Your task to perform on an android device: Open calendar and show me the third week of next month Image 0: 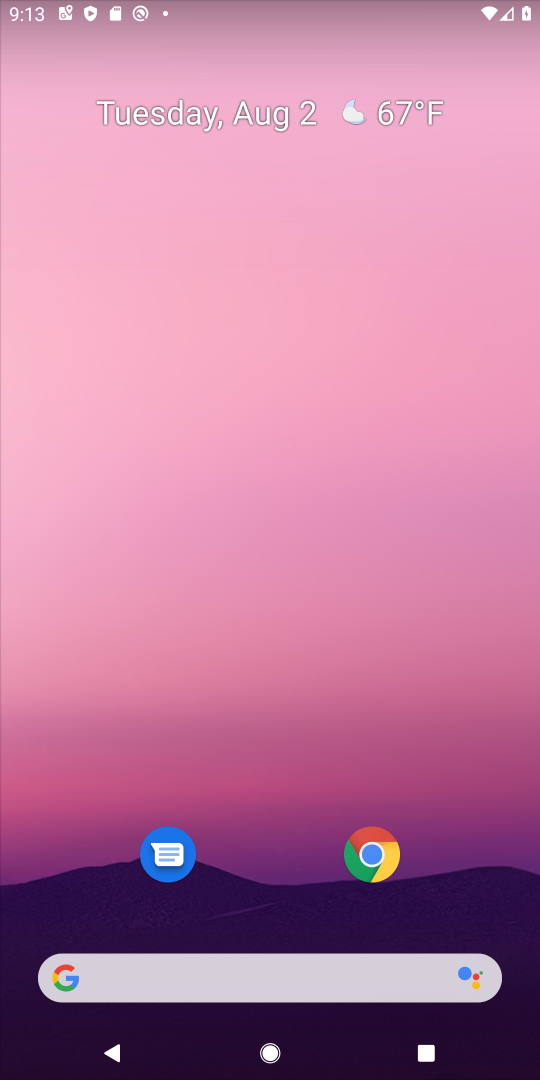
Step 0: drag from (230, 937) to (272, 51)
Your task to perform on an android device: Open calendar and show me the third week of next month Image 1: 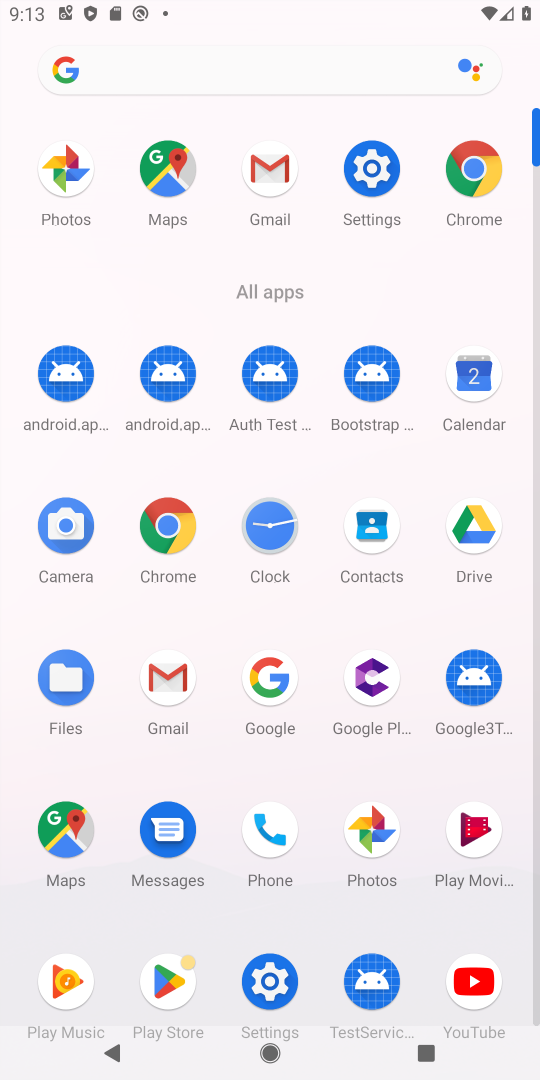
Step 1: click (459, 384)
Your task to perform on an android device: Open calendar and show me the third week of next month Image 2: 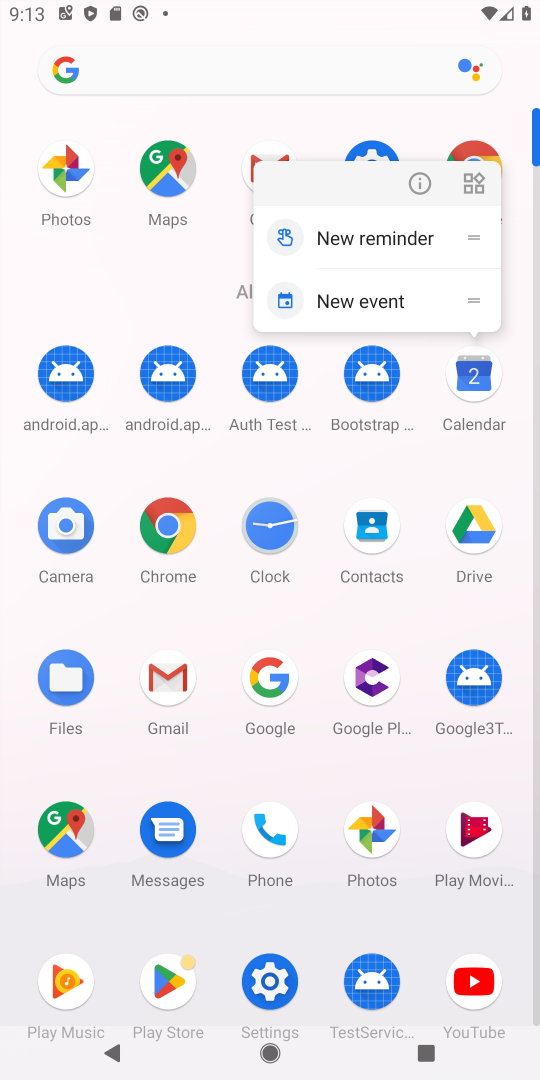
Step 2: click (489, 376)
Your task to perform on an android device: Open calendar and show me the third week of next month Image 3: 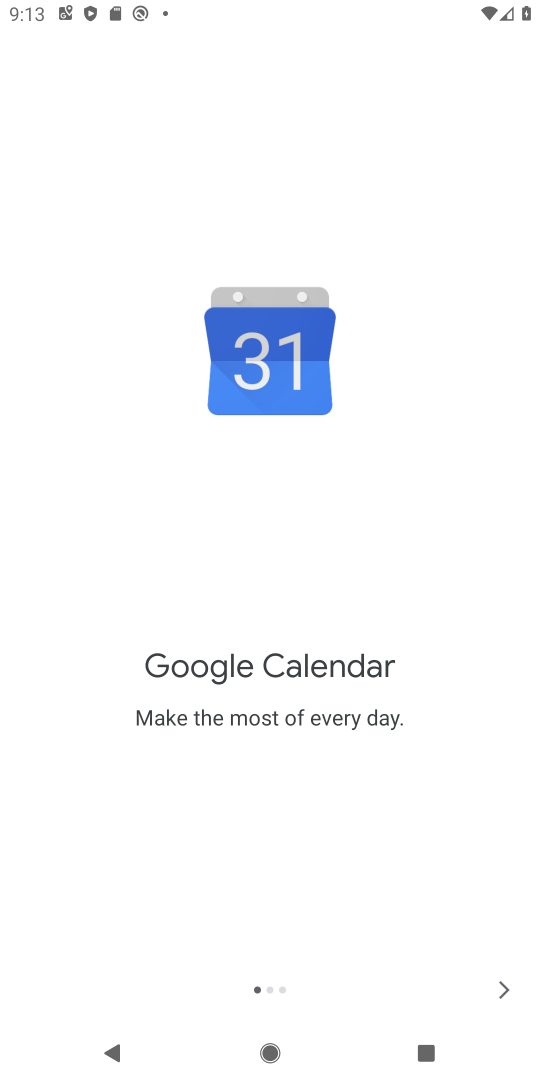
Step 3: click (511, 982)
Your task to perform on an android device: Open calendar and show me the third week of next month Image 4: 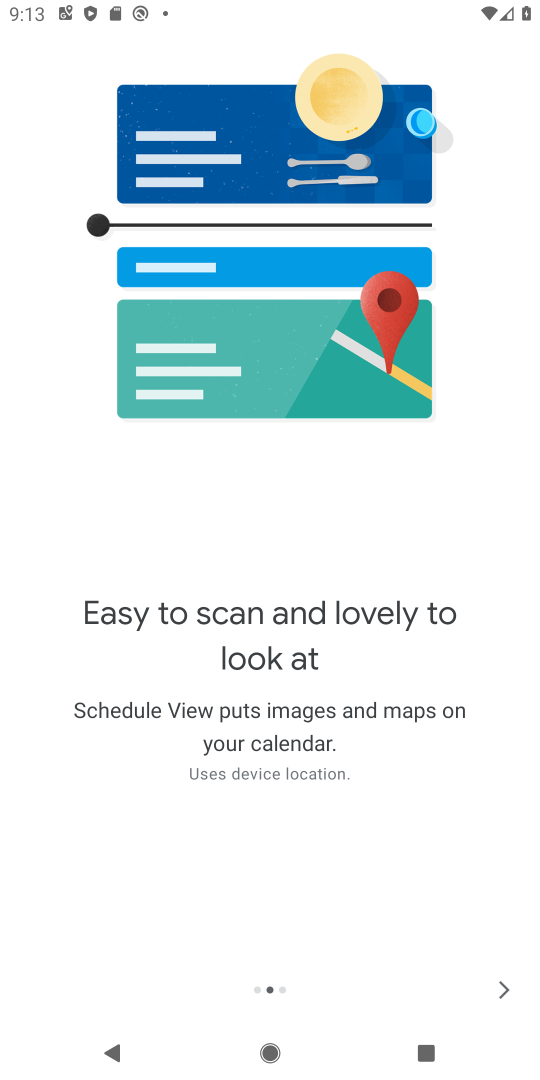
Step 4: click (499, 982)
Your task to perform on an android device: Open calendar and show me the third week of next month Image 5: 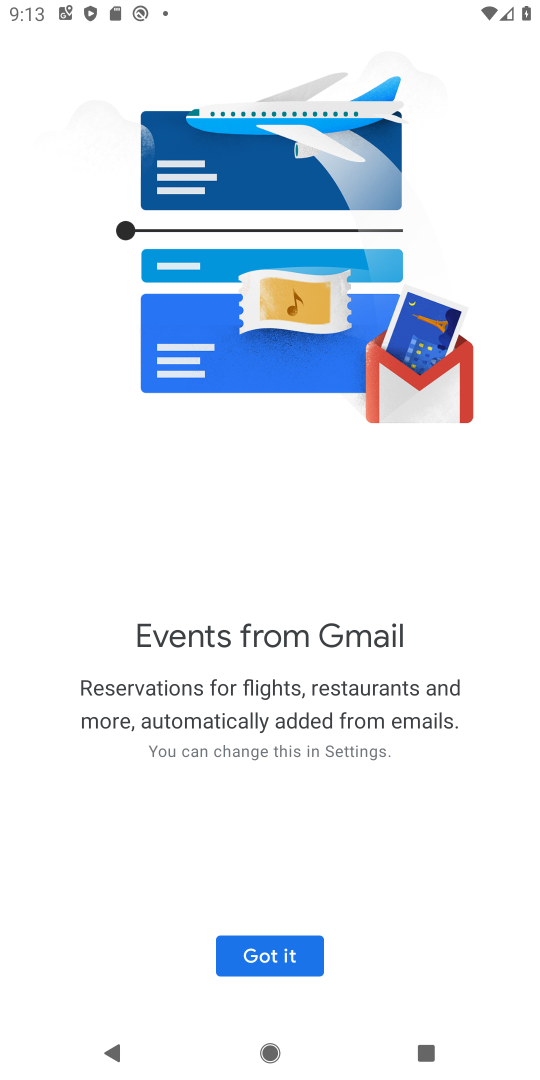
Step 5: click (279, 952)
Your task to perform on an android device: Open calendar and show me the third week of next month Image 6: 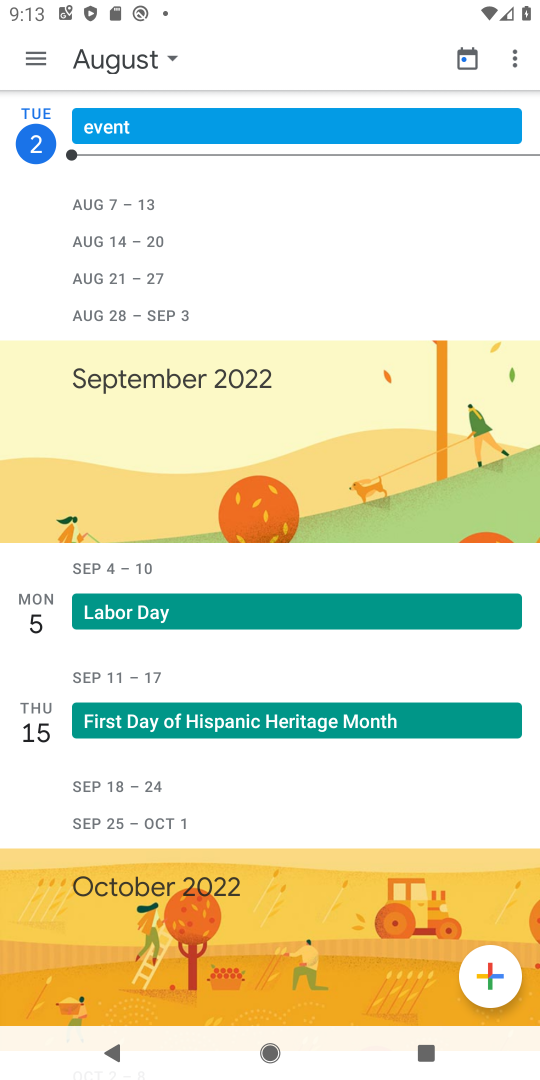
Step 6: click (22, 55)
Your task to perform on an android device: Open calendar and show me the third week of next month Image 7: 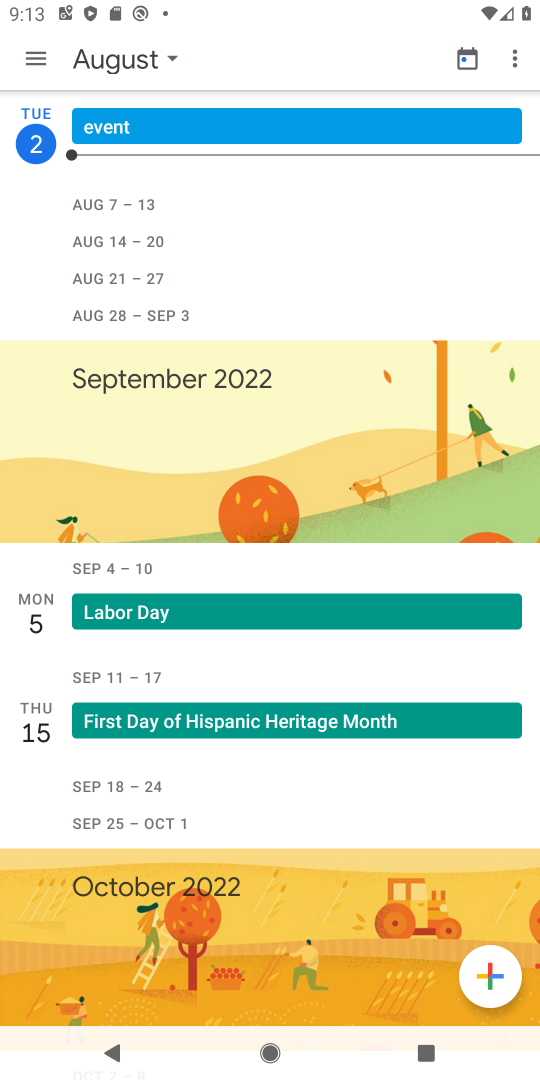
Step 7: click (30, 56)
Your task to perform on an android device: Open calendar and show me the third week of next month Image 8: 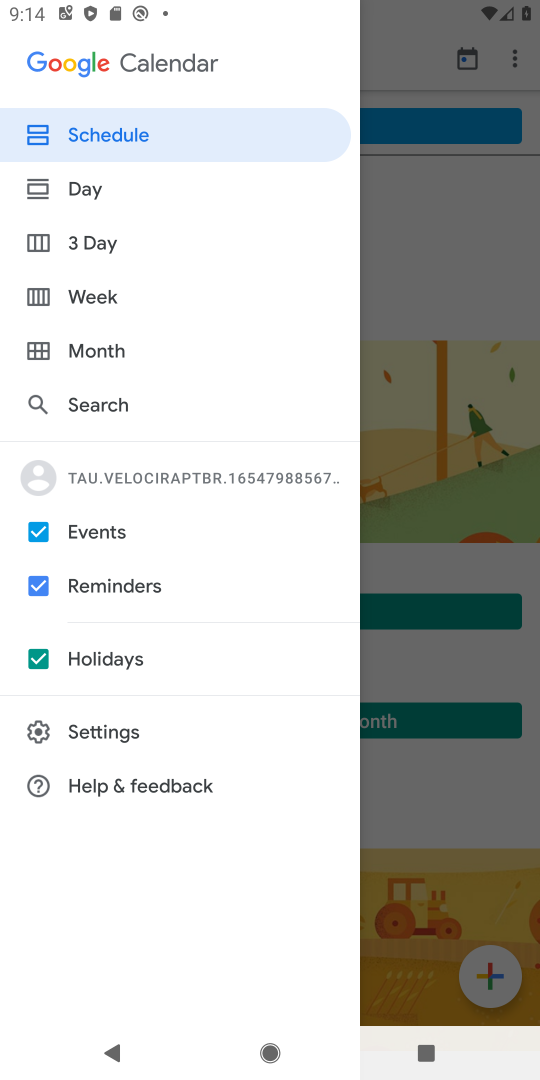
Step 8: click (107, 289)
Your task to perform on an android device: Open calendar and show me the third week of next month Image 9: 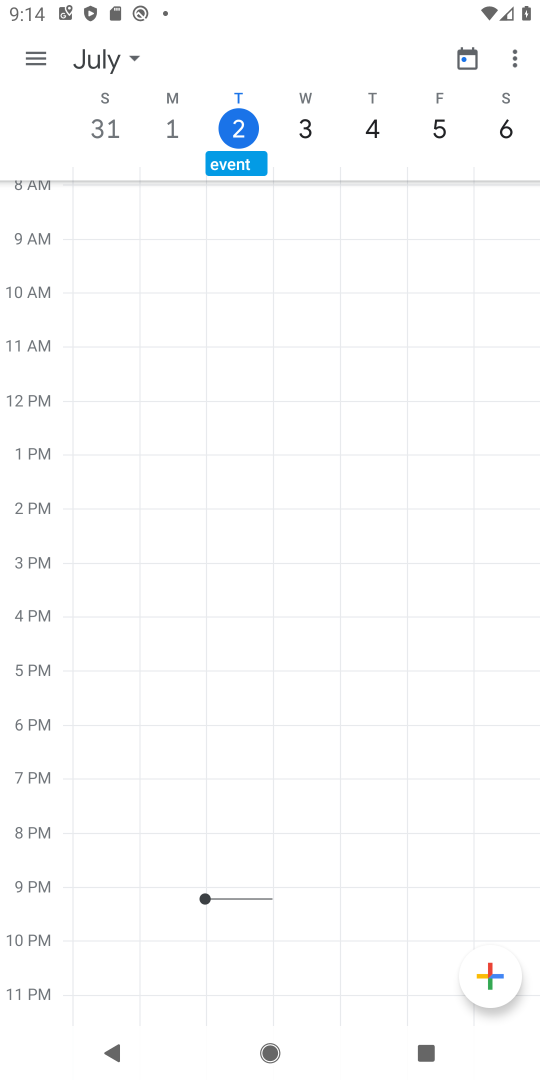
Step 9: task complete